Your task to perform on an android device: check the backup settings in the google photos Image 0: 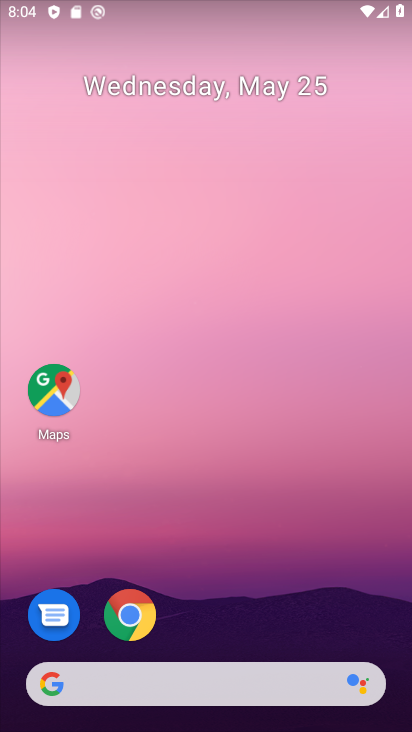
Step 0: drag from (218, 705) to (316, 2)
Your task to perform on an android device: check the backup settings in the google photos Image 1: 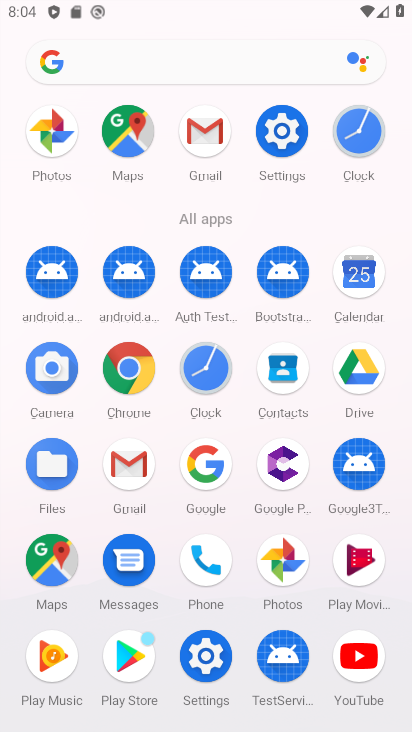
Step 1: click (276, 562)
Your task to perform on an android device: check the backup settings in the google photos Image 2: 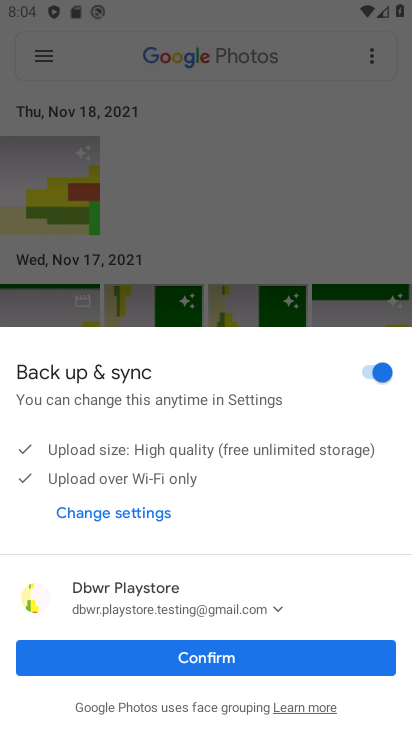
Step 2: click (327, 660)
Your task to perform on an android device: check the backup settings in the google photos Image 3: 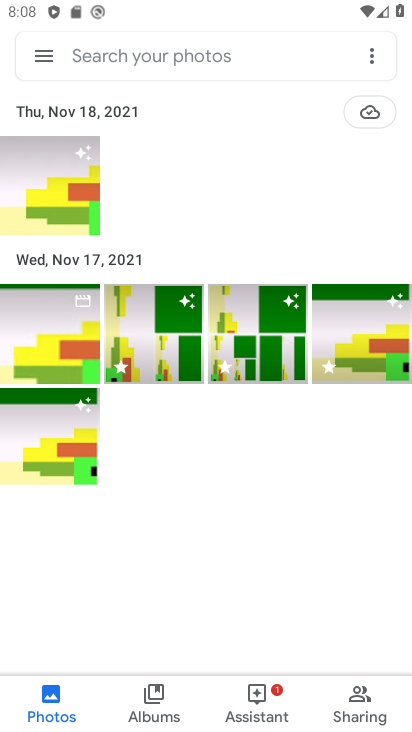
Step 3: click (33, 59)
Your task to perform on an android device: check the backup settings in the google photos Image 4: 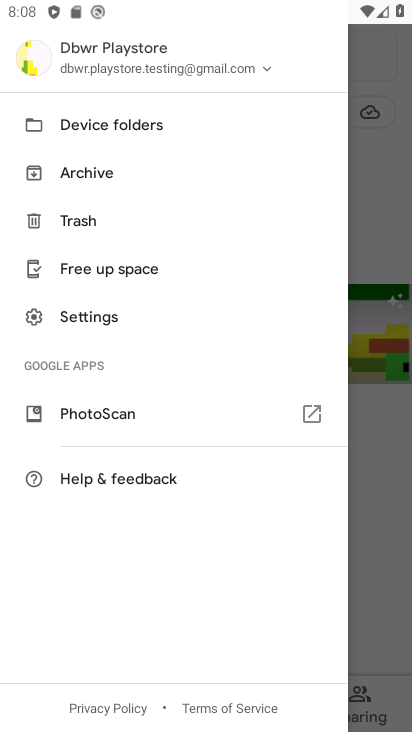
Step 4: click (120, 324)
Your task to perform on an android device: check the backup settings in the google photos Image 5: 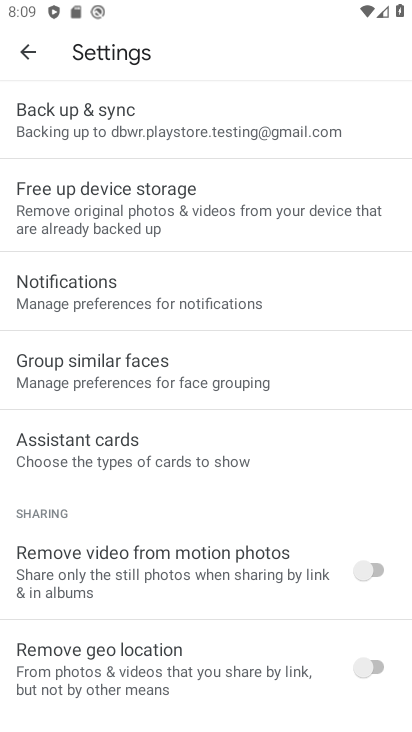
Step 5: click (198, 125)
Your task to perform on an android device: check the backup settings in the google photos Image 6: 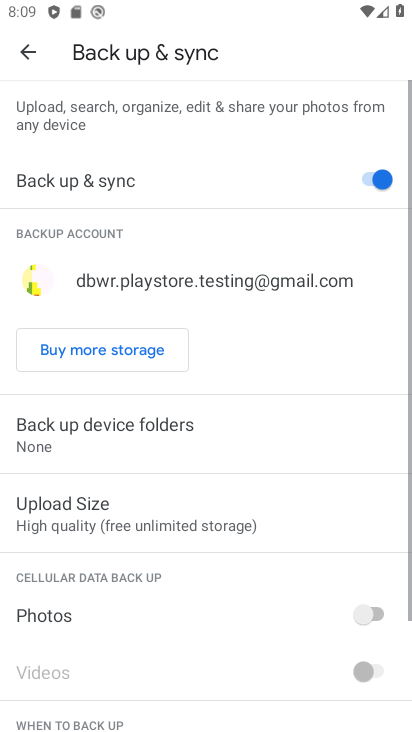
Step 6: task complete